Your task to perform on an android device: What's the weather? Image 0: 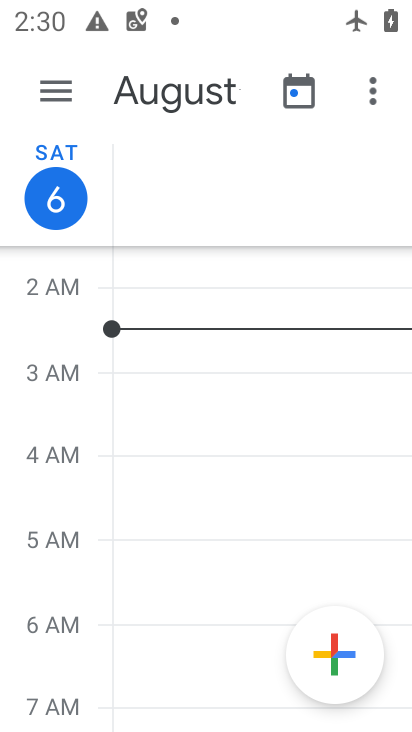
Step 0: press home button
Your task to perform on an android device: What's the weather? Image 1: 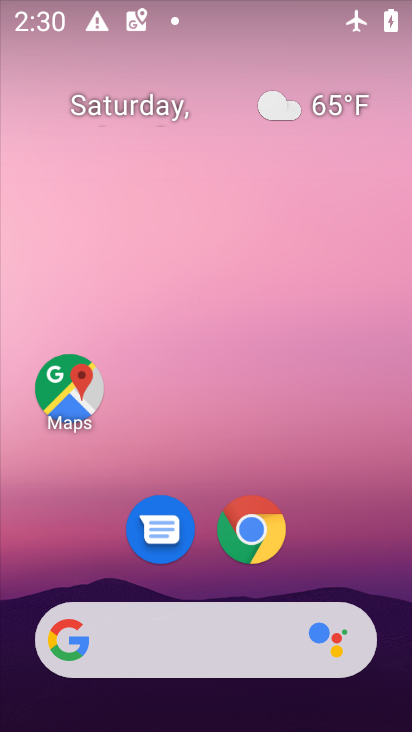
Step 1: click (257, 534)
Your task to perform on an android device: What's the weather? Image 2: 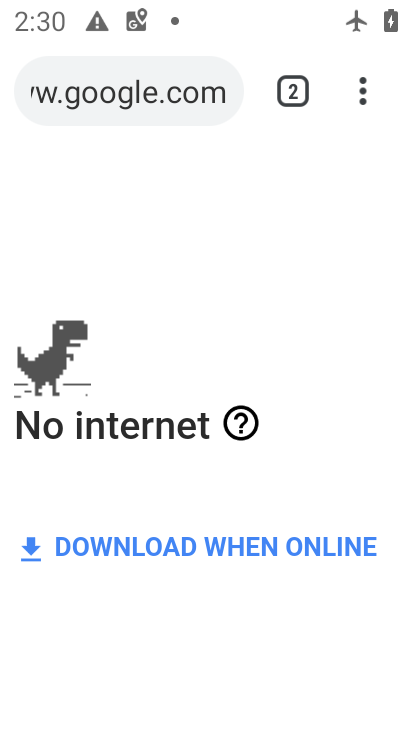
Step 2: click (134, 111)
Your task to perform on an android device: What's the weather? Image 3: 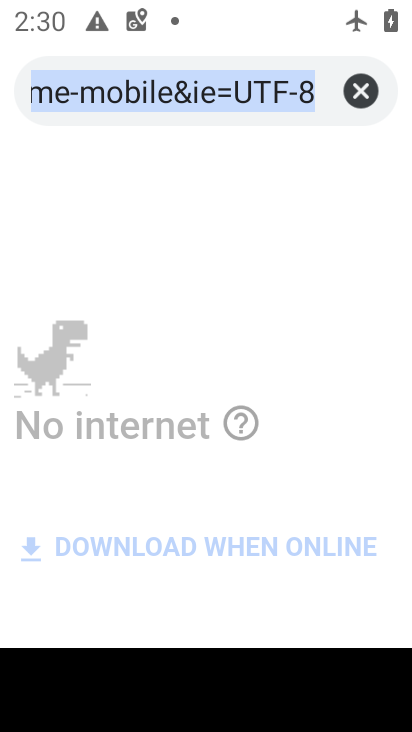
Step 3: type "What's the weather?"
Your task to perform on an android device: What's the weather? Image 4: 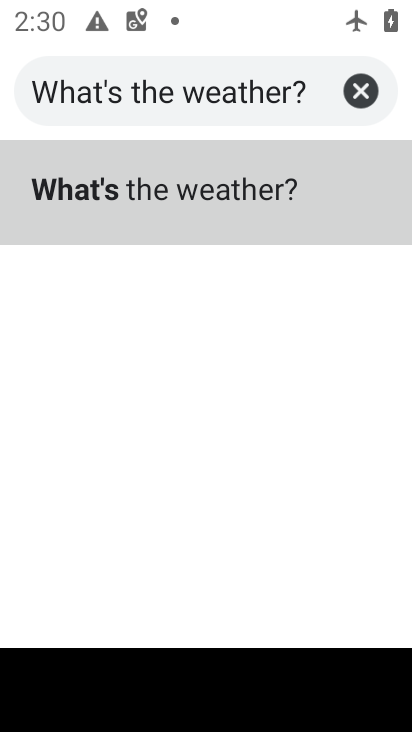
Step 4: click (282, 170)
Your task to perform on an android device: What's the weather? Image 5: 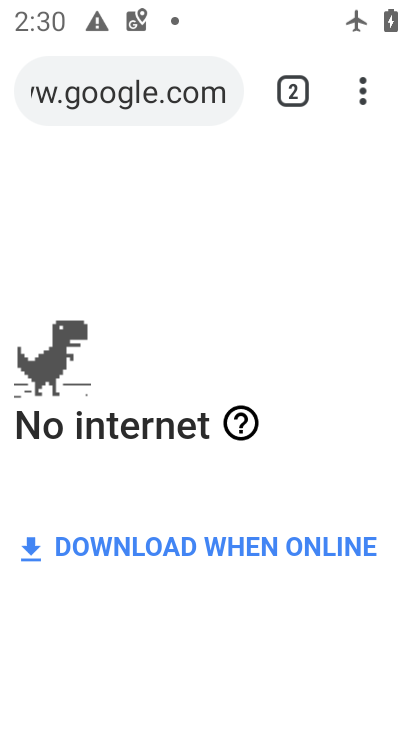
Step 5: task complete